Your task to perform on an android device: toggle airplane mode Image 0: 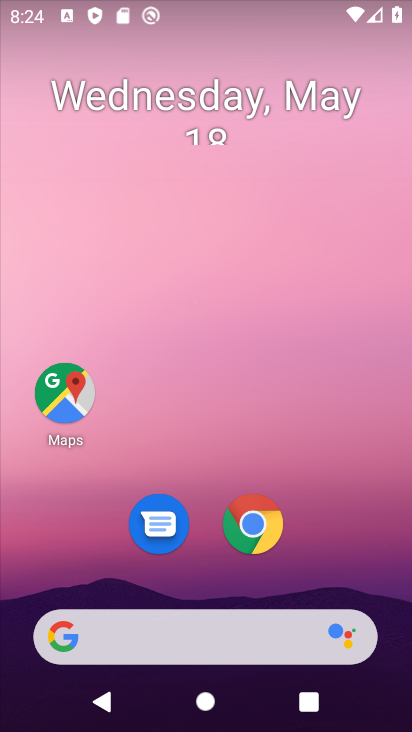
Step 0: drag from (291, 449) to (291, 39)
Your task to perform on an android device: toggle airplane mode Image 1: 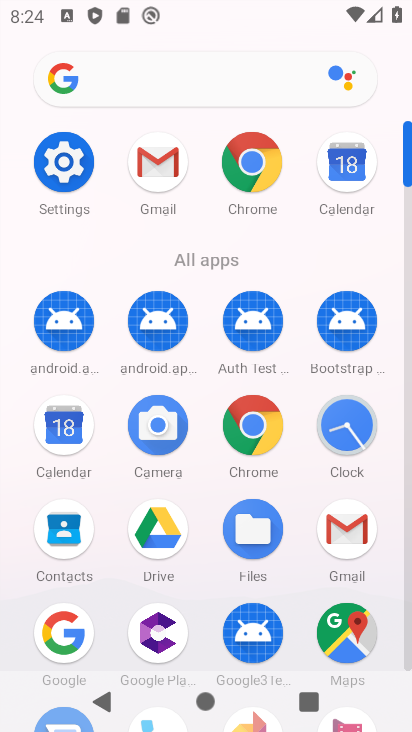
Step 1: click (72, 158)
Your task to perform on an android device: toggle airplane mode Image 2: 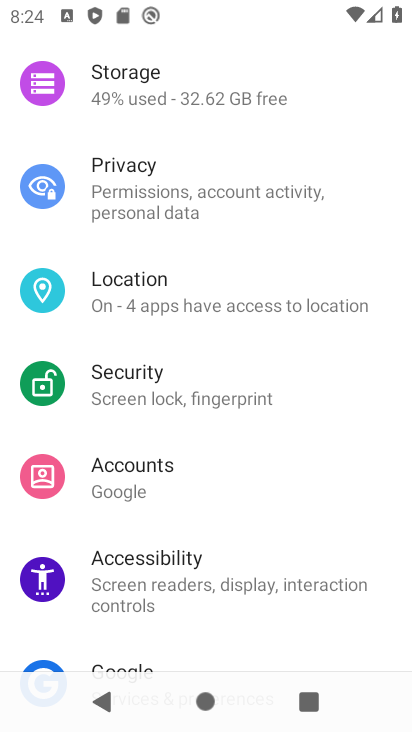
Step 2: drag from (247, 158) to (254, 575)
Your task to perform on an android device: toggle airplane mode Image 3: 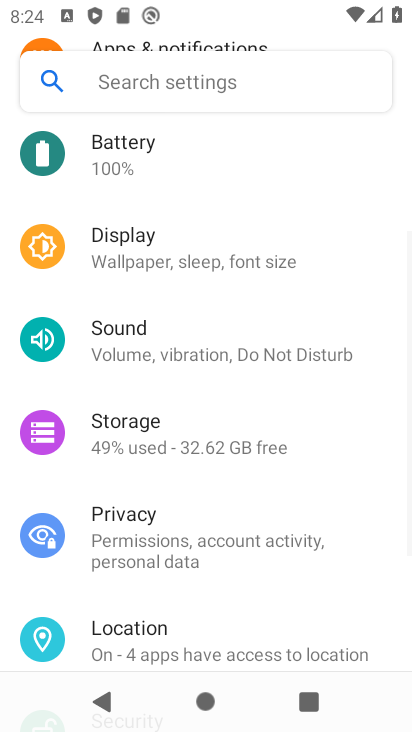
Step 3: drag from (249, 208) to (220, 654)
Your task to perform on an android device: toggle airplane mode Image 4: 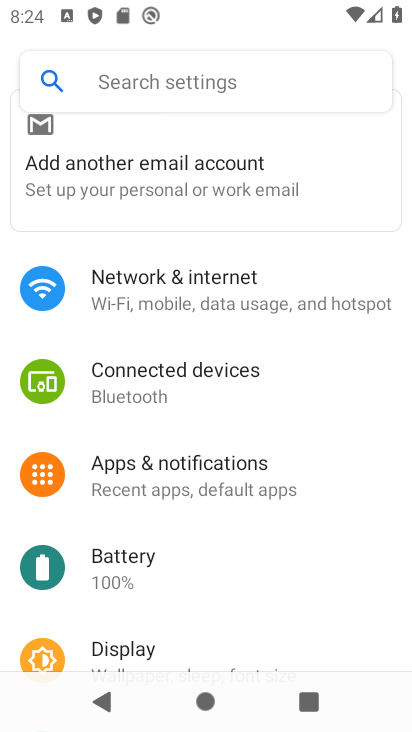
Step 4: click (290, 293)
Your task to perform on an android device: toggle airplane mode Image 5: 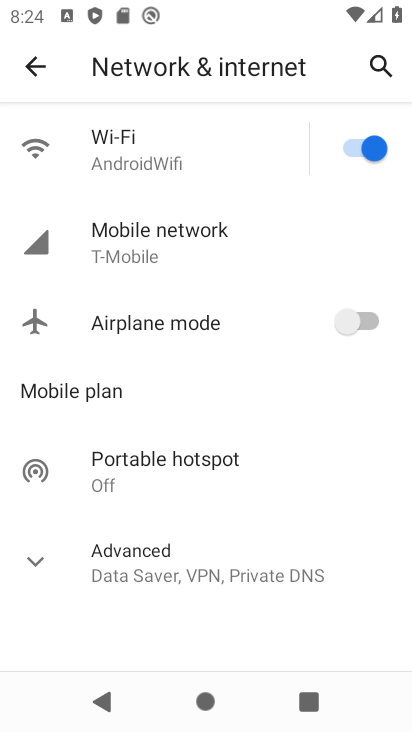
Step 5: click (365, 313)
Your task to perform on an android device: toggle airplane mode Image 6: 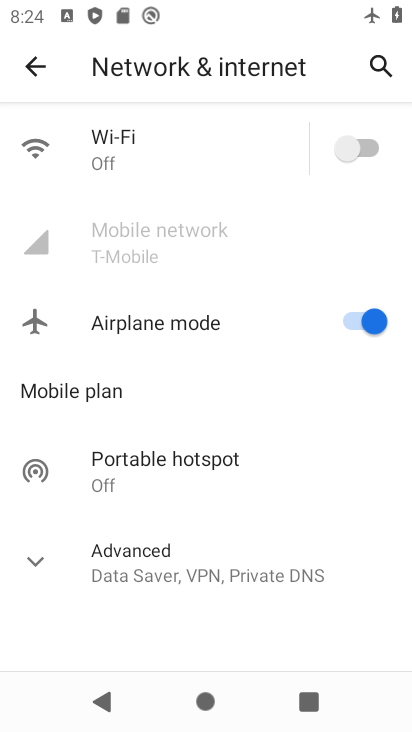
Step 6: task complete